Your task to perform on an android device: open a bookmark in the chrome app Image 0: 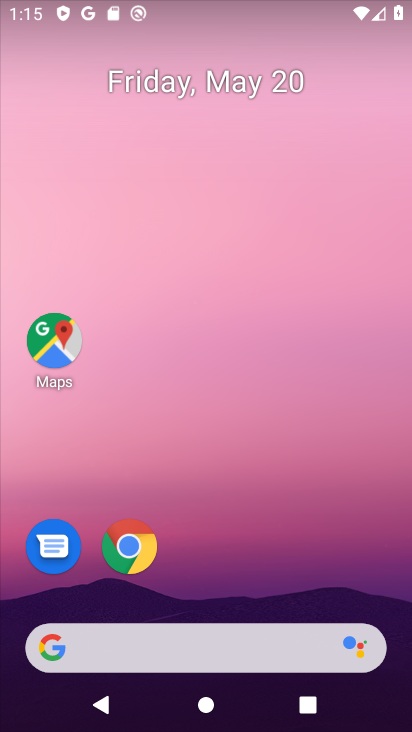
Step 0: drag from (323, 504) to (305, 0)
Your task to perform on an android device: open a bookmark in the chrome app Image 1: 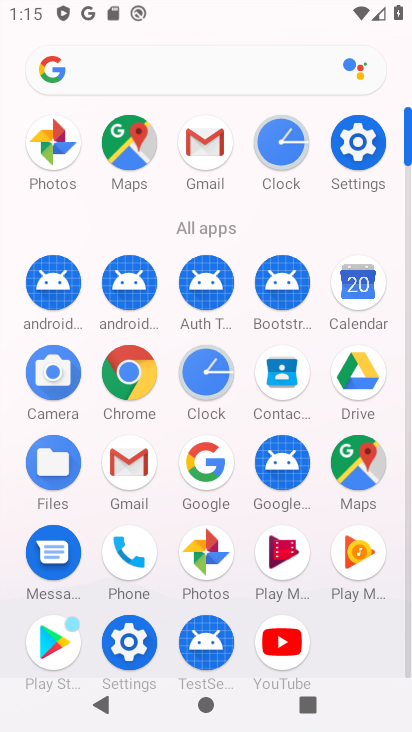
Step 1: click (135, 384)
Your task to perform on an android device: open a bookmark in the chrome app Image 2: 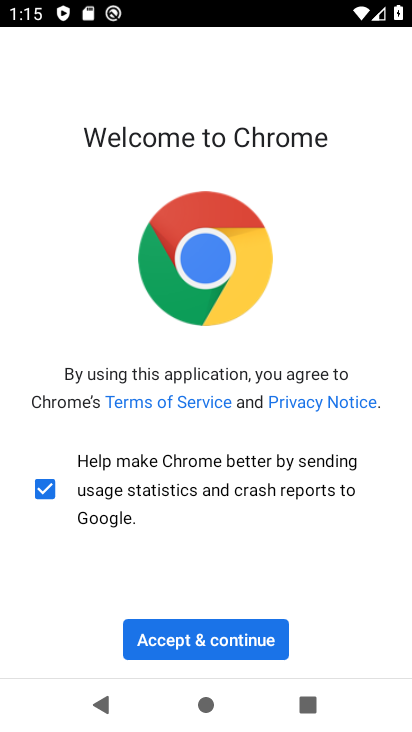
Step 2: click (237, 622)
Your task to perform on an android device: open a bookmark in the chrome app Image 3: 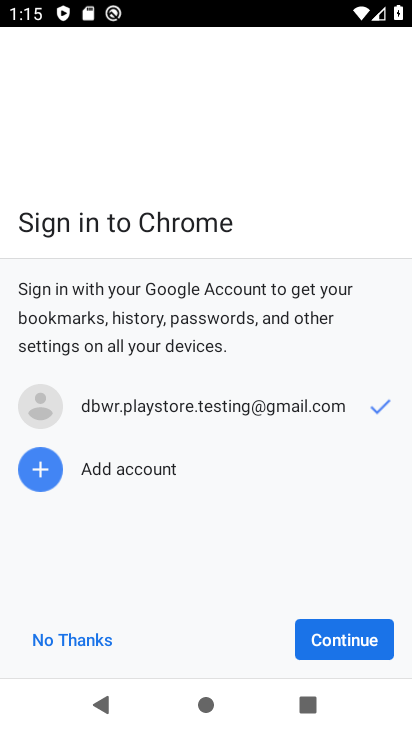
Step 3: click (57, 640)
Your task to perform on an android device: open a bookmark in the chrome app Image 4: 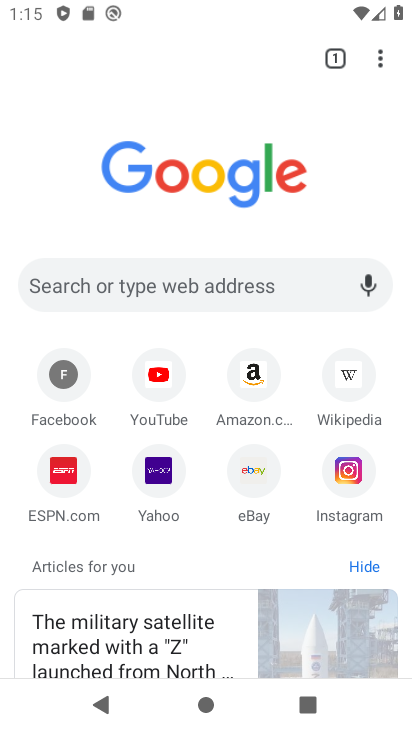
Step 4: task complete